Your task to perform on an android device: delete location history Image 0: 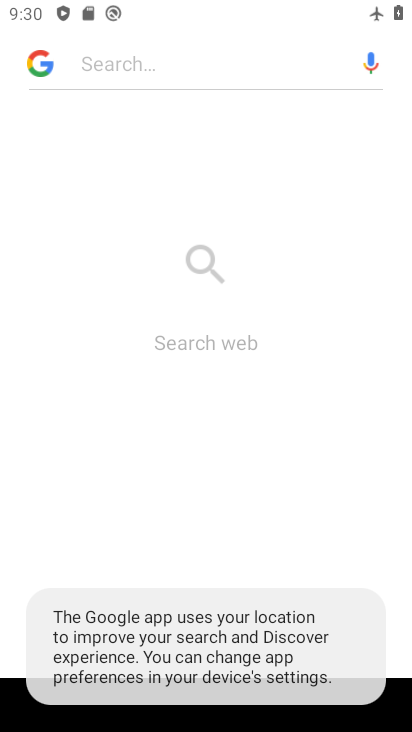
Step 0: press home button
Your task to perform on an android device: delete location history Image 1: 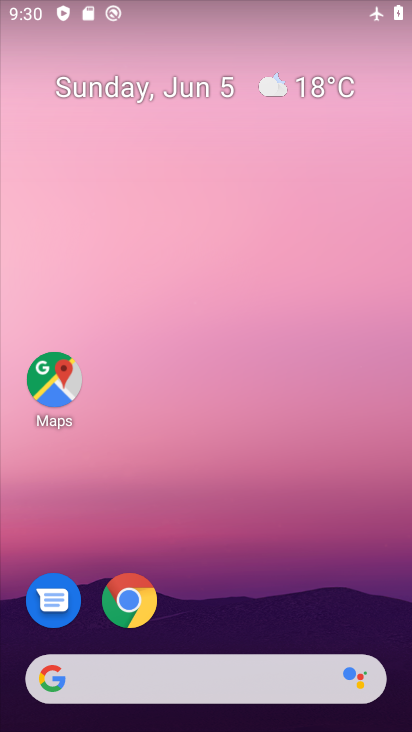
Step 1: drag from (235, 467) to (271, 145)
Your task to perform on an android device: delete location history Image 2: 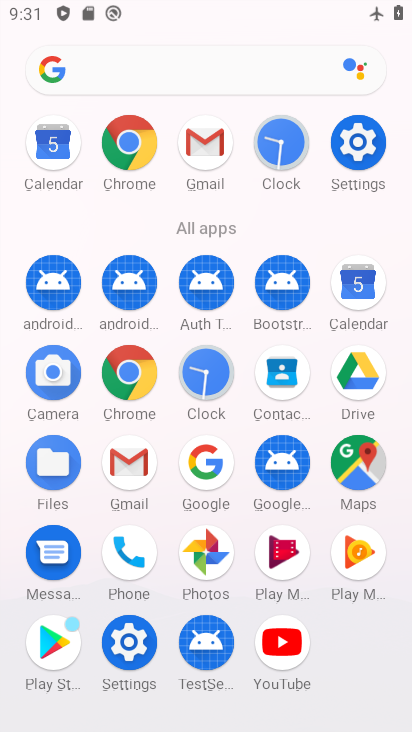
Step 2: click (358, 461)
Your task to perform on an android device: delete location history Image 3: 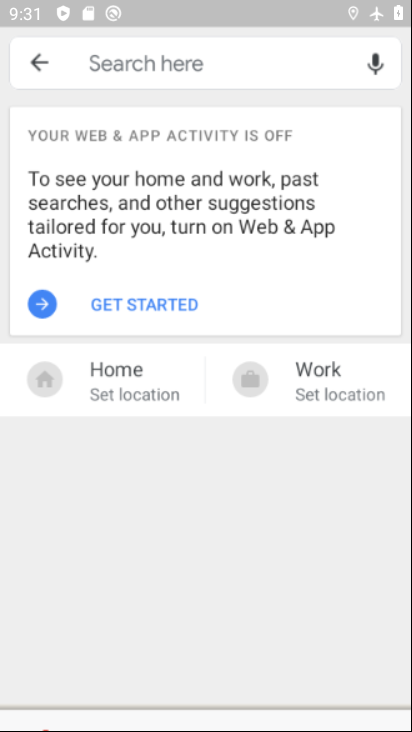
Step 3: click (42, 64)
Your task to perform on an android device: delete location history Image 4: 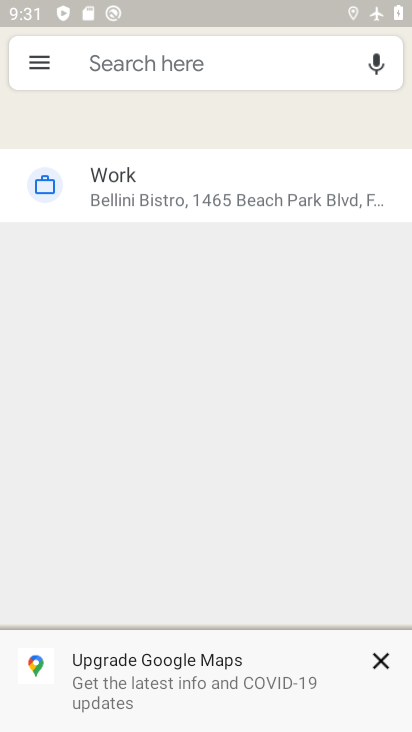
Step 4: click (39, 59)
Your task to perform on an android device: delete location history Image 5: 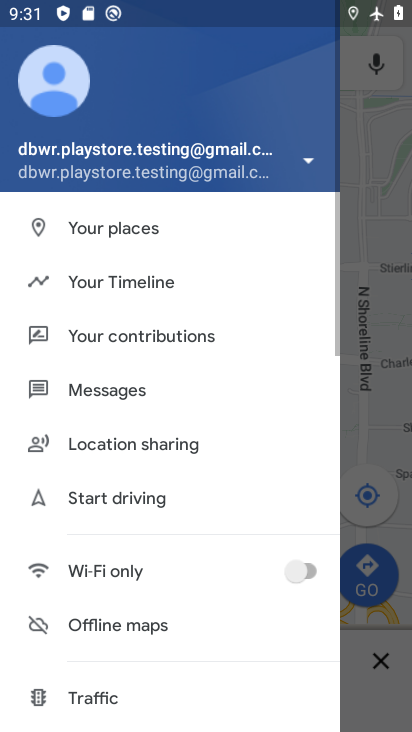
Step 5: drag from (177, 516) to (204, 13)
Your task to perform on an android device: delete location history Image 6: 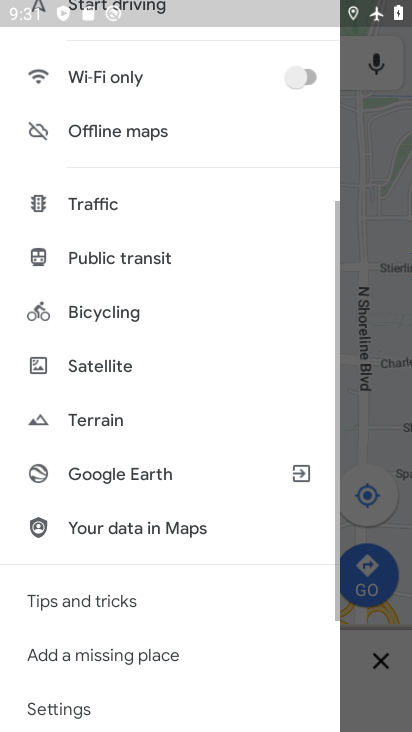
Step 6: drag from (136, 630) to (206, 316)
Your task to perform on an android device: delete location history Image 7: 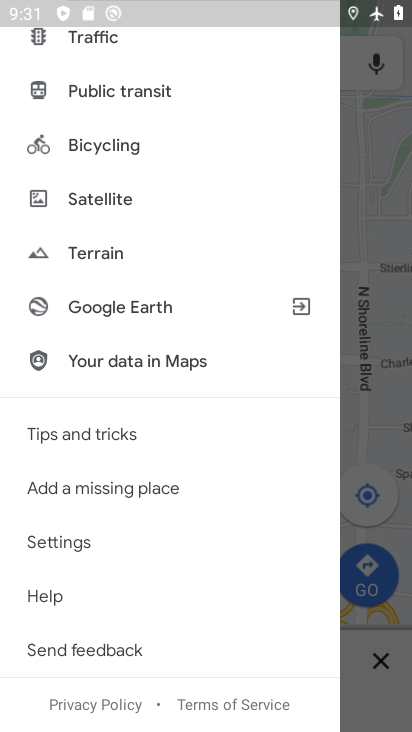
Step 7: click (78, 538)
Your task to perform on an android device: delete location history Image 8: 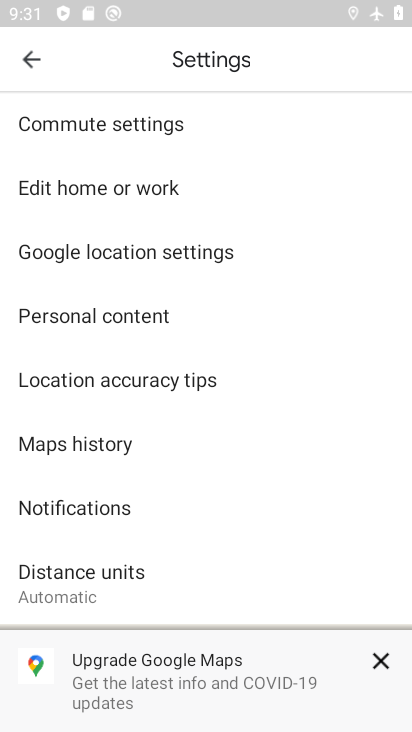
Step 8: click (122, 446)
Your task to perform on an android device: delete location history Image 9: 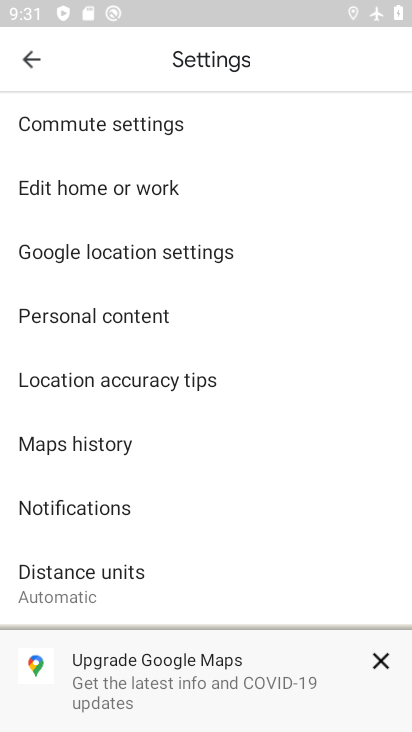
Step 9: click (115, 454)
Your task to perform on an android device: delete location history Image 10: 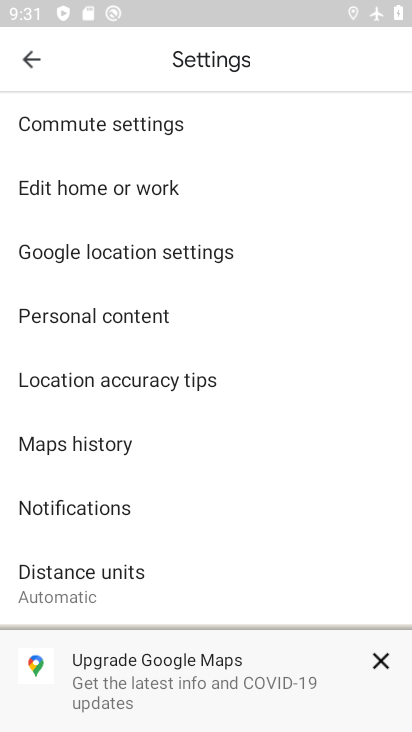
Step 10: click (109, 432)
Your task to perform on an android device: delete location history Image 11: 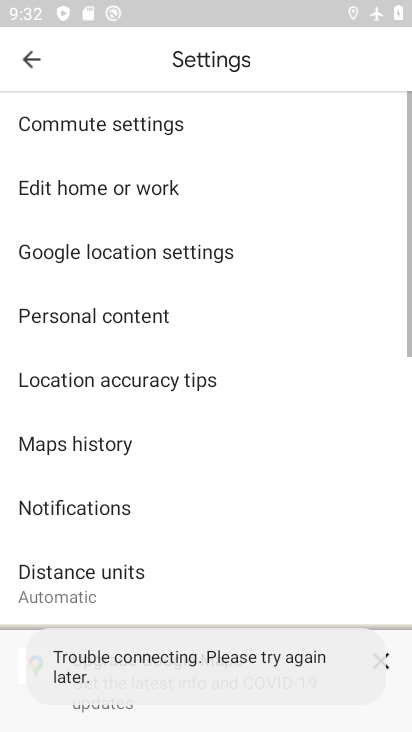
Step 11: click (105, 447)
Your task to perform on an android device: delete location history Image 12: 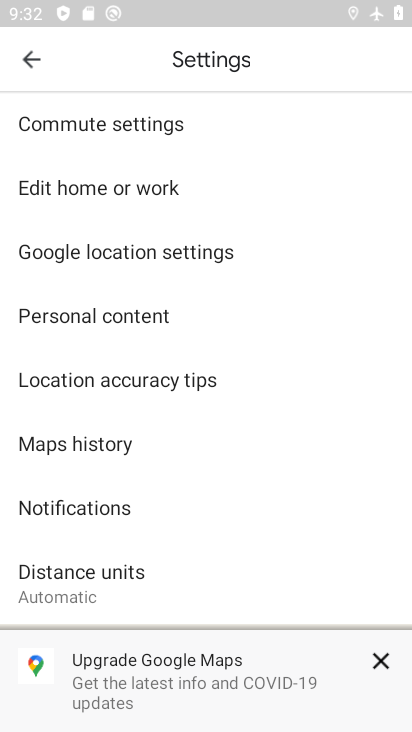
Step 12: click (90, 448)
Your task to perform on an android device: delete location history Image 13: 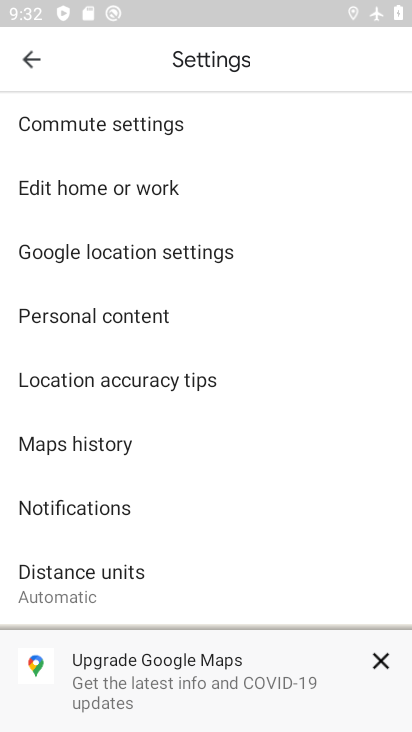
Step 13: task complete